Your task to perform on an android device: Open the web browser Image 0: 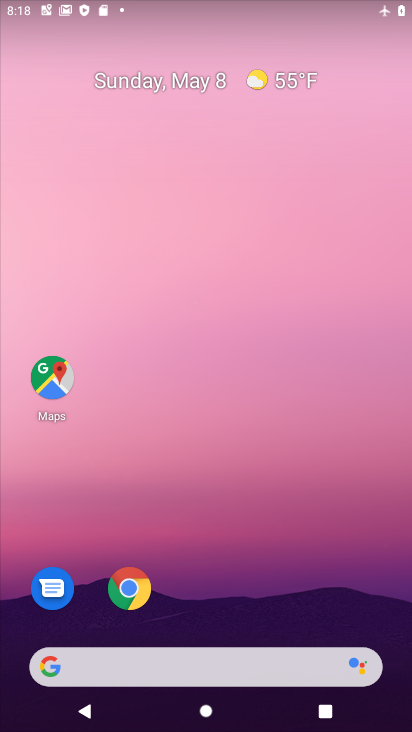
Step 0: click (121, 580)
Your task to perform on an android device: Open the web browser Image 1: 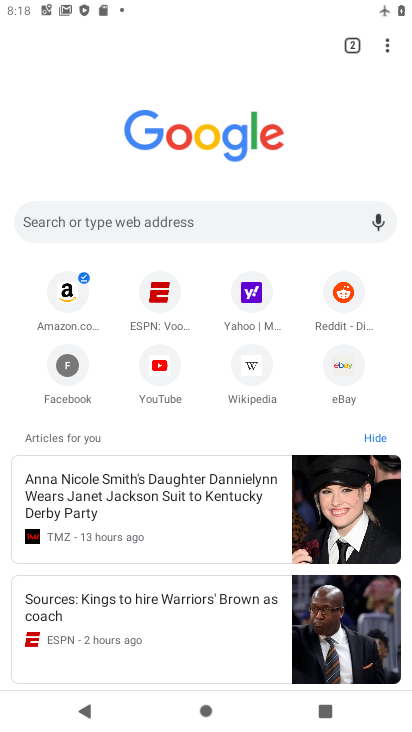
Step 1: task complete